Your task to perform on an android device: Go to notification settings Image 0: 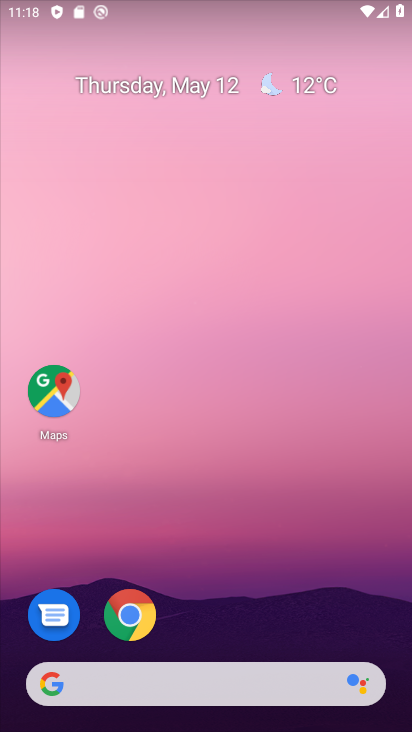
Step 0: drag from (241, 560) to (222, 54)
Your task to perform on an android device: Go to notification settings Image 1: 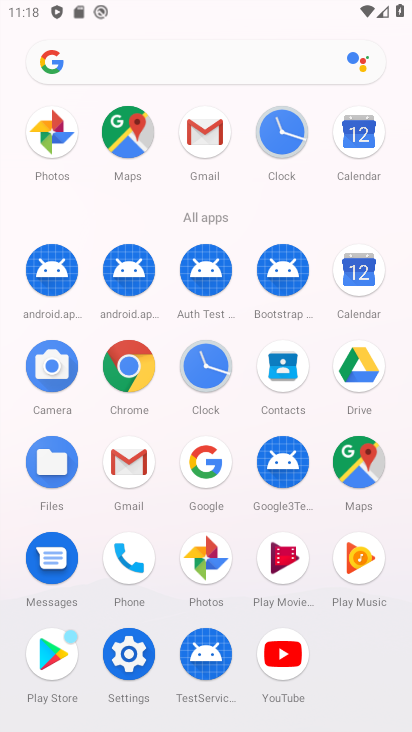
Step 1: click (124, 642)
Your task to perform on an android device: Go to notification settings Image 2: 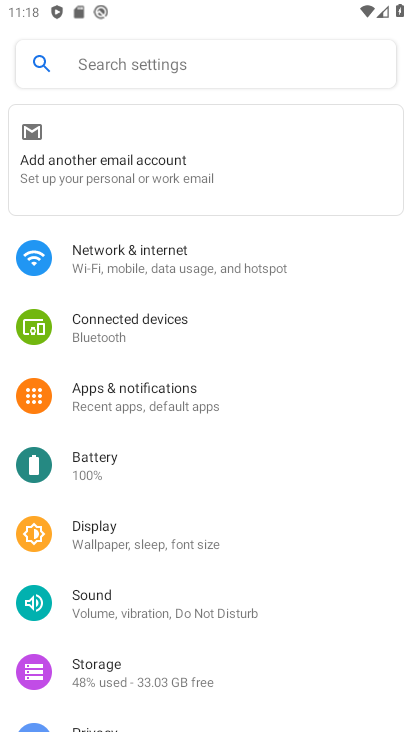
Step 2: click (199, 390)
Your task to perform on an android device: Go to notification settings Image 3: 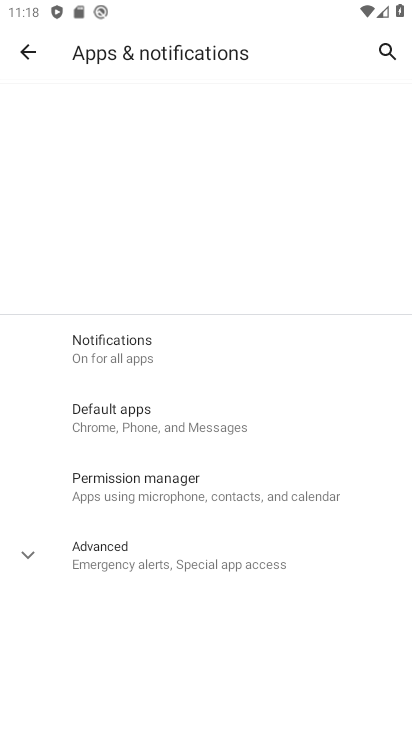
Step 3: click (160, 357)
Your task to perform on an android device: Go to notification settings Image 4: 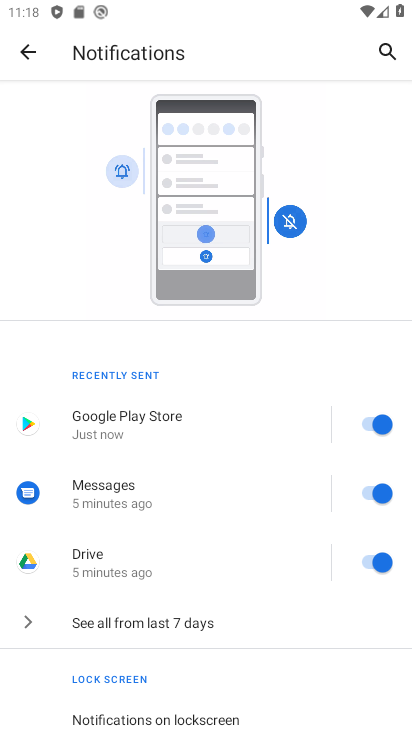
Step 4: task complete